Your task to perform on an android device: change alarm snooze length Image 0: 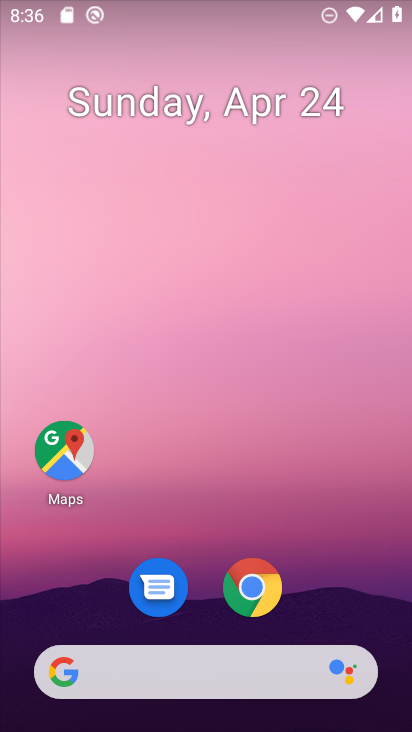
Step 0: drag from (369, 589) to (337, 87)
Your task to perform on an android device: change alarm snooze length Image 1: 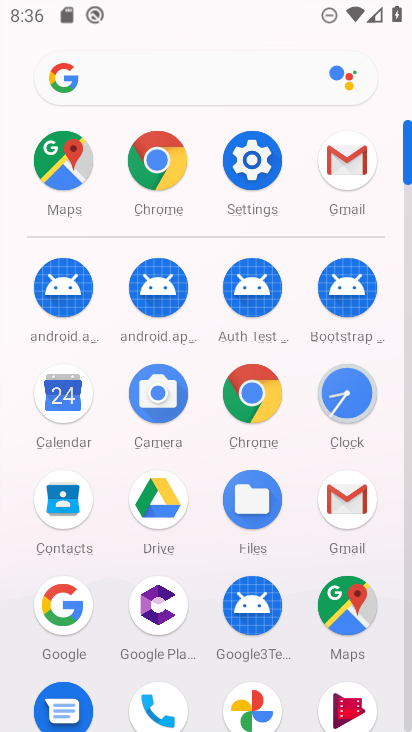
Step 1: drag from (298, 547) to (293, 198)
Your task to perform on an android device: change alarm snooze length Image 2: 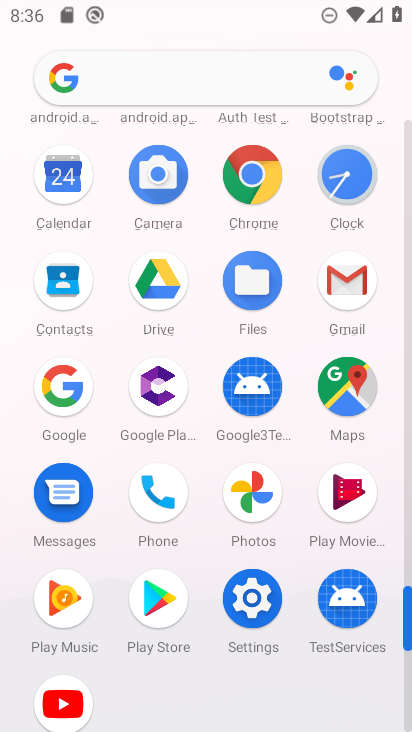
Step 2: click (352, 178)
Your task to perform on an android device: change alarm snooze length Image 3: 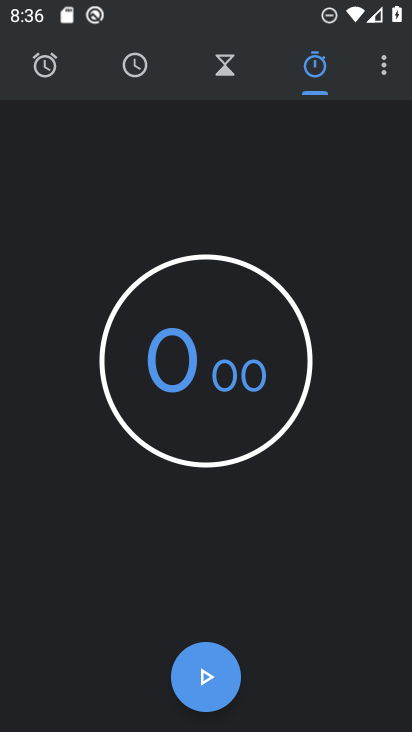
Step 3: click (390, 65)
Your task to perform on an android device: change alarm snooze length Image 4: 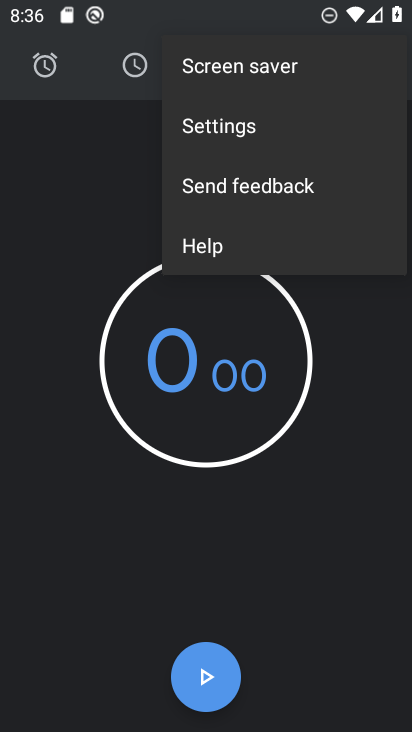
Step 4: click (280, 124)
Your task to perform on an android device: change alarm snooze length Image 5: 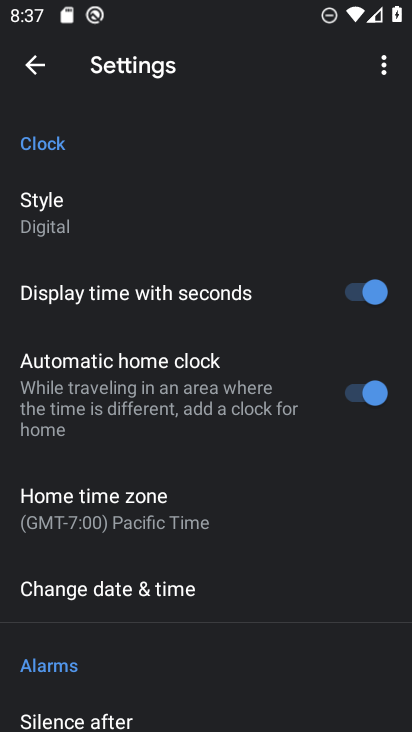
Step 5: drag from (213, 580) to (230, 155)
Your task to perform on an android device: change alarm snooze length Image 6: 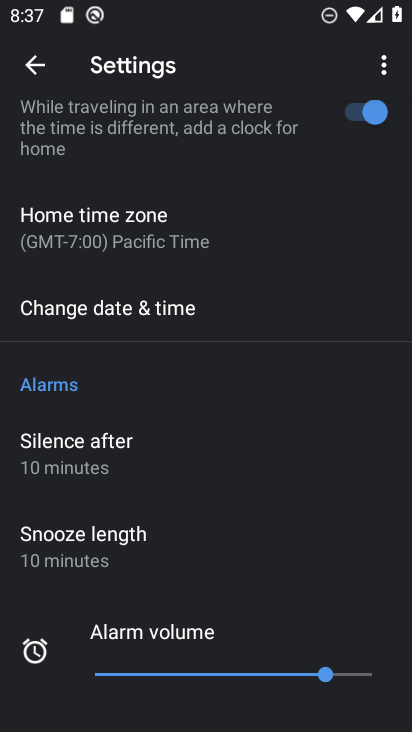
Step 6: click (163, 531)
Your task to perform on an android device: change alarm snooze length Image 7: 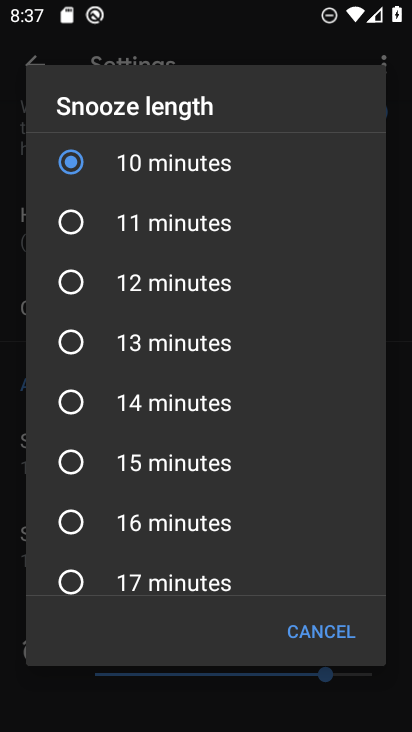
Step 7: click (172, 457)
Your task to perform on an android device: change alarm snooze length Image 8: 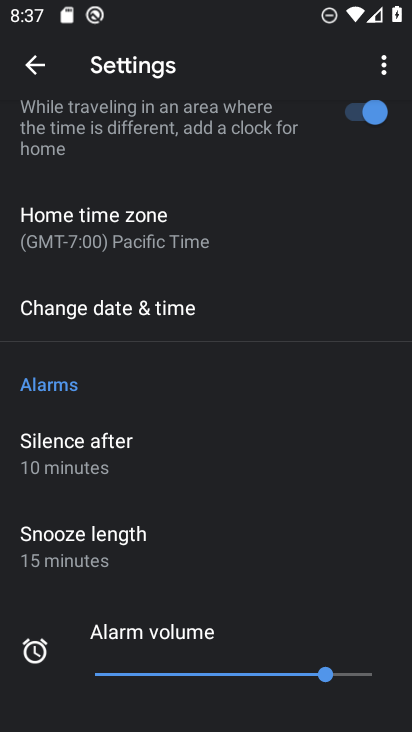
Step 8: task complete